Your task to perform on an android device: Open the calendar and show me this week's events? Image 0: 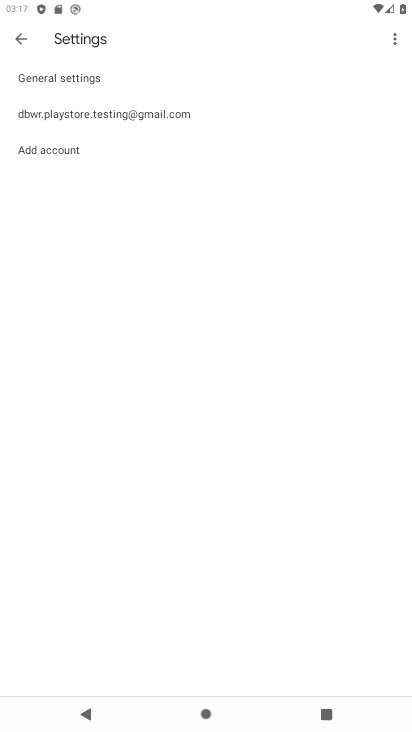
Step 0: press home button
Your task to perform on an android device: Open the calendar and show me this week's events? Image 1: 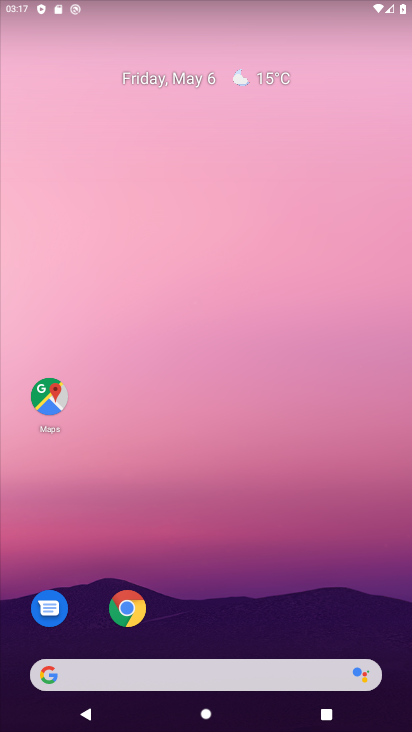
Step 1: drag from (196, 671) to (198, 111)
Your task to perform on an android device: Open the calendar and show me this week's events? Image 2: 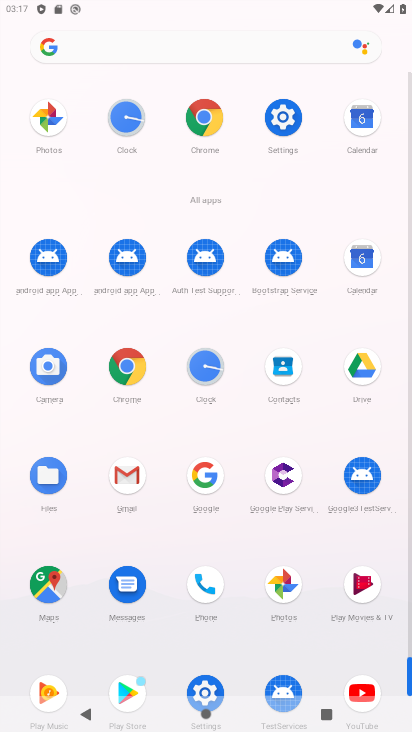
Step 2: click (354, 251)
Your task to perform on an android device: Open the calendar and show me this week's events? Image 3: 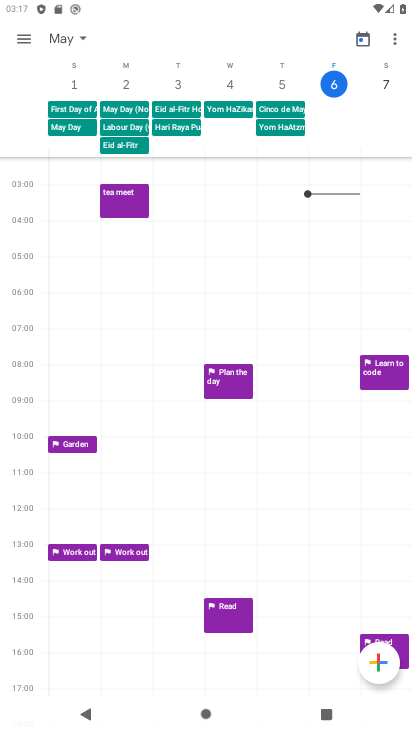
Step 3: task complete